Your task to perform on an android device: turn smart compose on in the gmail app Image 0: 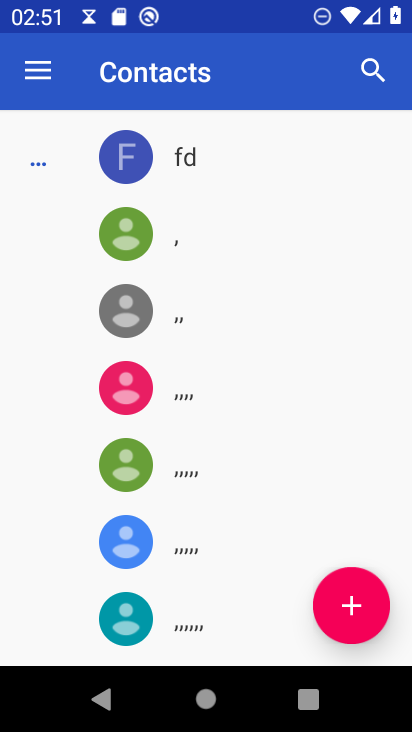
Step 0: press home button
Your task to perform on an android device: turn smart compose on in the gmail app Image 1: 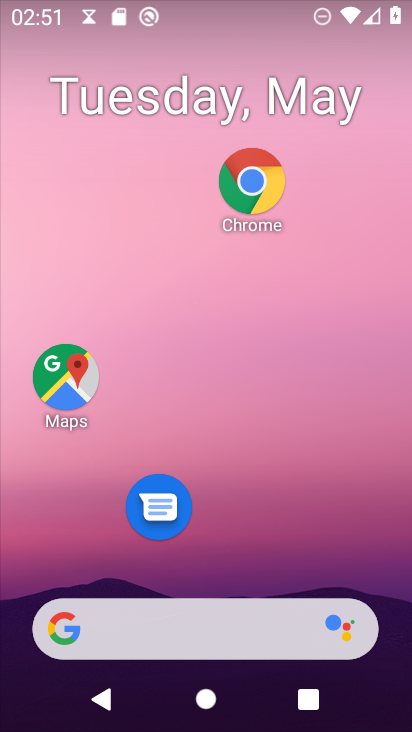
Step 1: drag from (285, 418) to (297, 311)
Your task to perform on an android device: turn smart compose on in the gmail app Image 2: 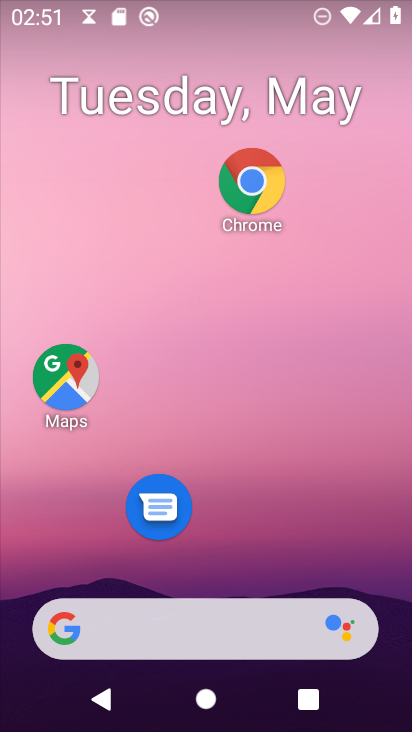
Step 2: drag from (257, 495) to (289, 233)
Your task to perform on an android device: turn smart compose on in the gmail app Image 3: 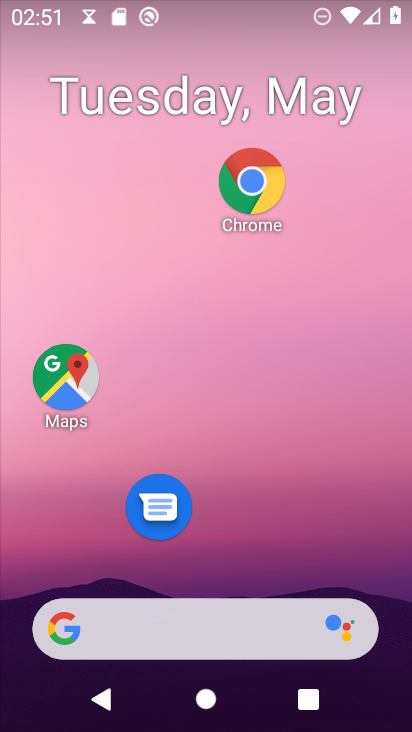
Step 3: drag from (305, 518) to (323, 114)
Your task to perform on an android device: turn smart compose on in the gmail app Image 4: 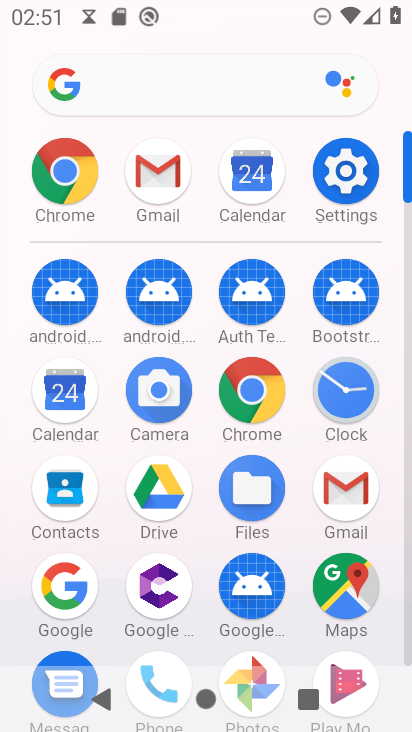
Step 4: click (336, 478)
Your task to perform on an android device: turn smart compose on in the gmail app Image 5: 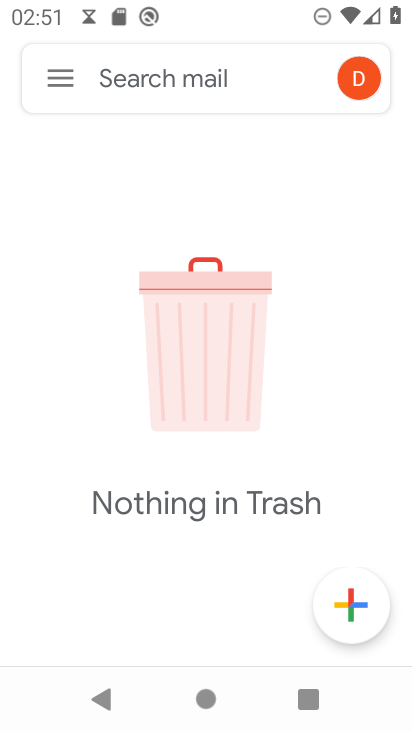
Step 5: click (48, 81)
Your task to perform on an android device: turn smart compose on in the gmail app Image 6: 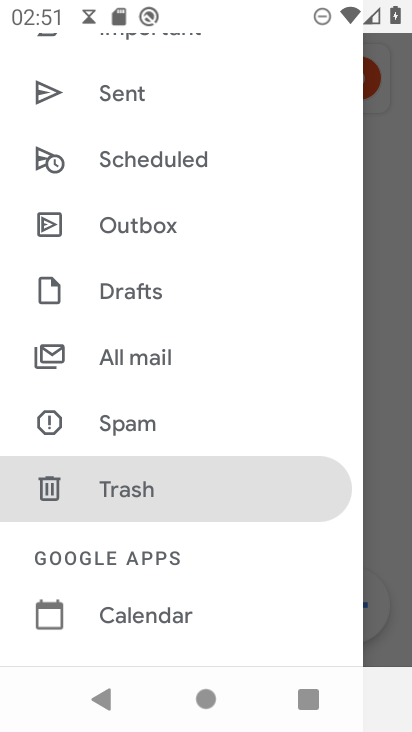
Step 6: drag from (166, 541) to (207, 176)
Your task to perform on an android device: turn smart compose on in the gmail app Image 7: 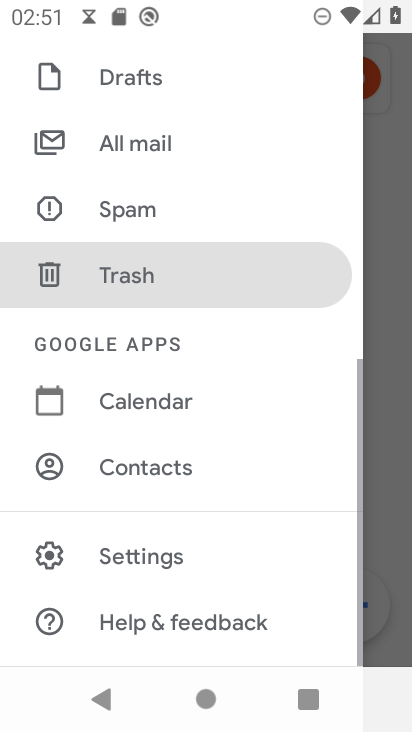
Step 7: click (154, 545)
Your task to perform on an android device: turn smart compose on in the gmail app Image 8: 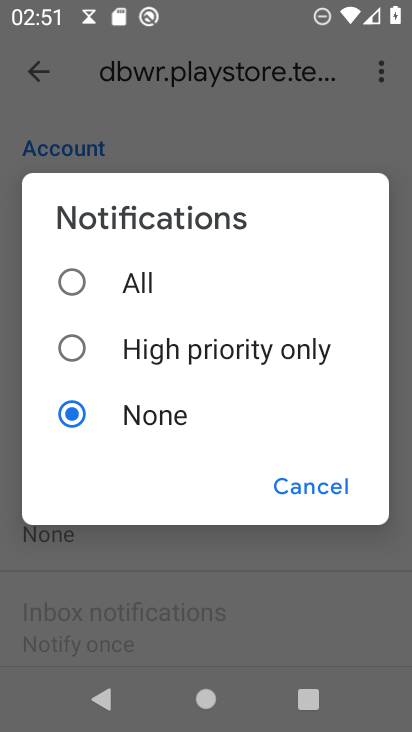
Step 8: click (336, 491)
Your task to perform on an android device: turn smart compose on in the gmail app Image 9: 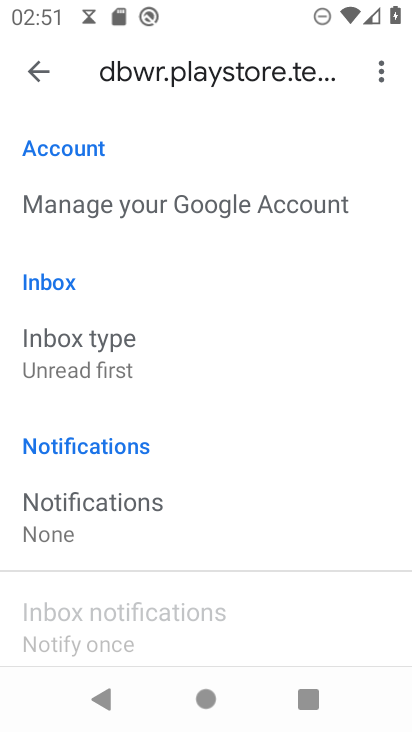
Step 9: task complete